Your task to perform on an android device: What's on my calendar today? Image 0: 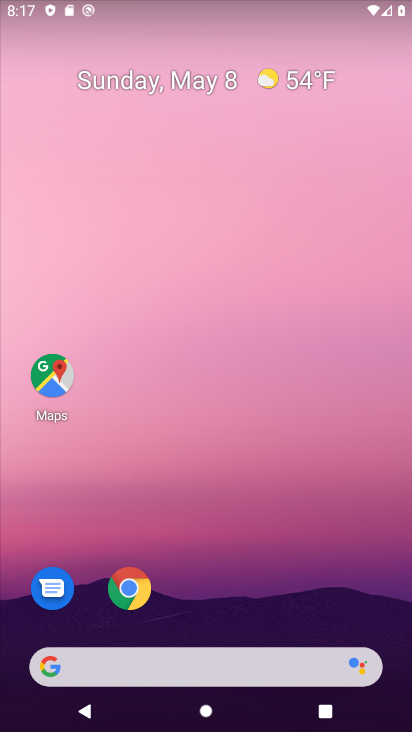
Step 0: drag from (9, 689) to (324, 126)
Your task to perform on an android device: What's on my calendar today? Image 1: 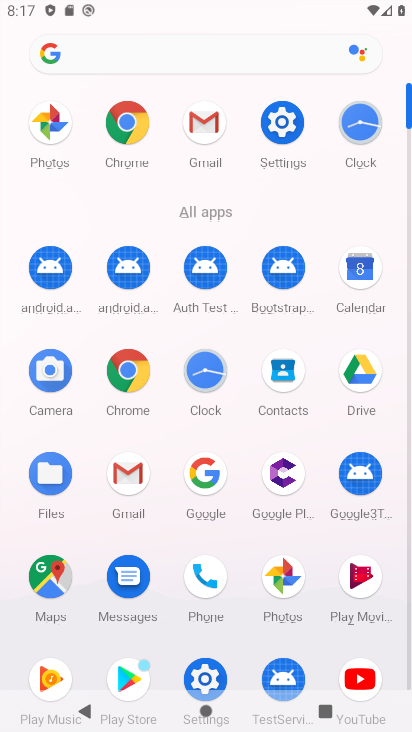
Step 1: click (358, 259)
Your task to perform on an android device: What's on my calendar today? Image 2: 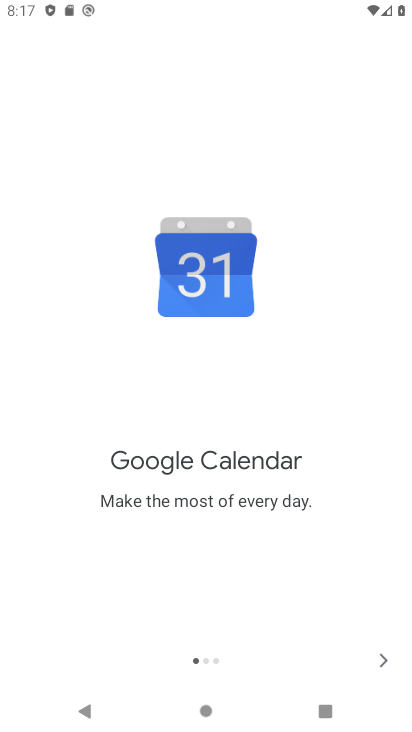
Step 2: click (383, 664)
Your task to perform on an android device: What's on my calendar today? Image 3: 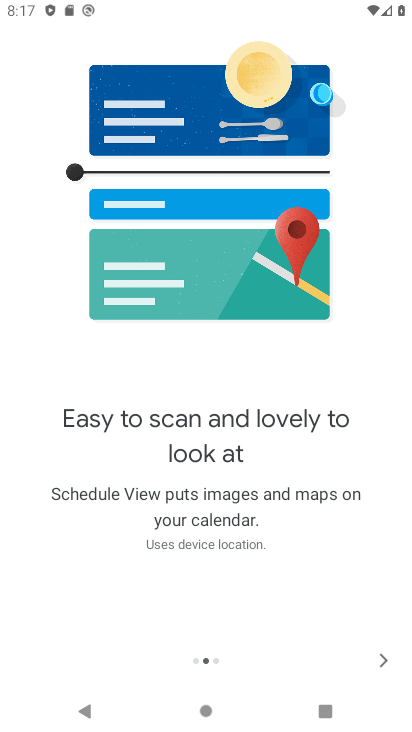
Step 3: click (383, 664)
Your task to perform on an android device: What's on my calendar today? Image 4: 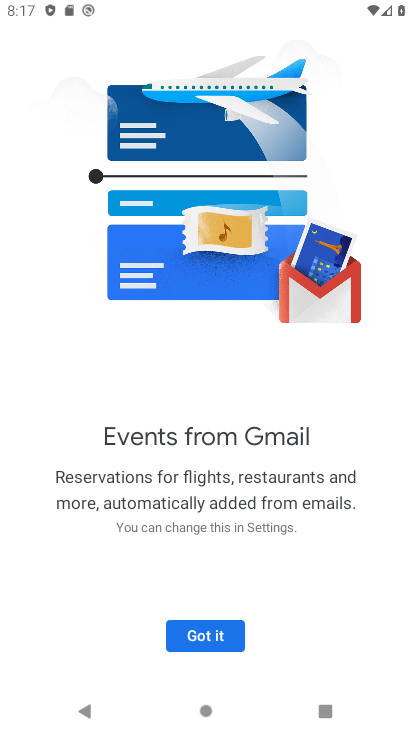
Step 4: click (229, 641)
Your task to perform on an android device: What's on my calendar today? Image 5: 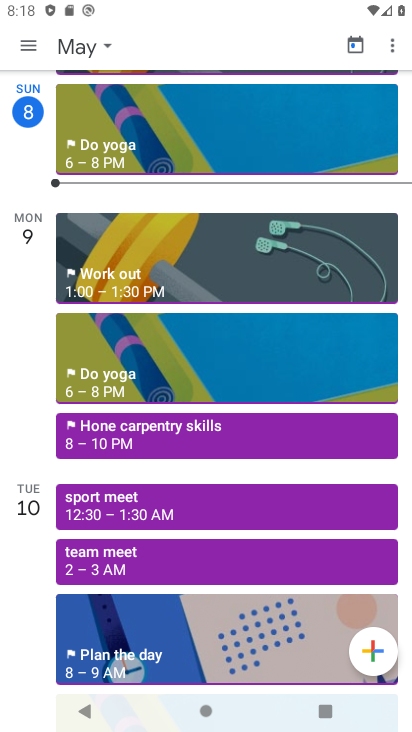
Step 5: click (103, 37)
Your task to perform on an android device: What's on my calendar today? Image 6: 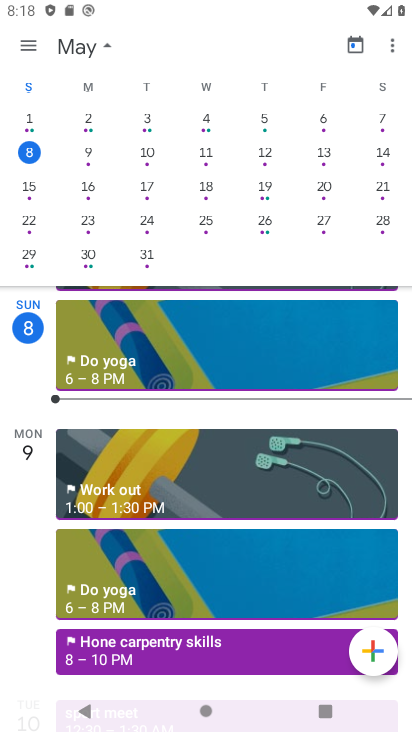
Step 6: click (22, 153)
Your task to perform on an android device: What's on my calendar today? Image 7: 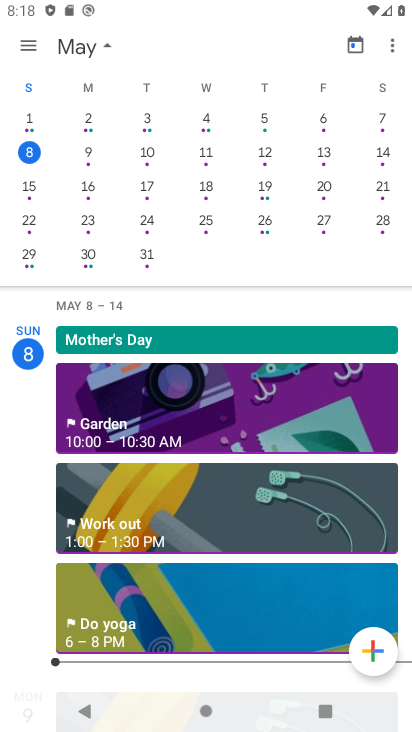
Step 7: task complete